Your task to perform on an android device: toggle javascript in the chrome app Image 0: 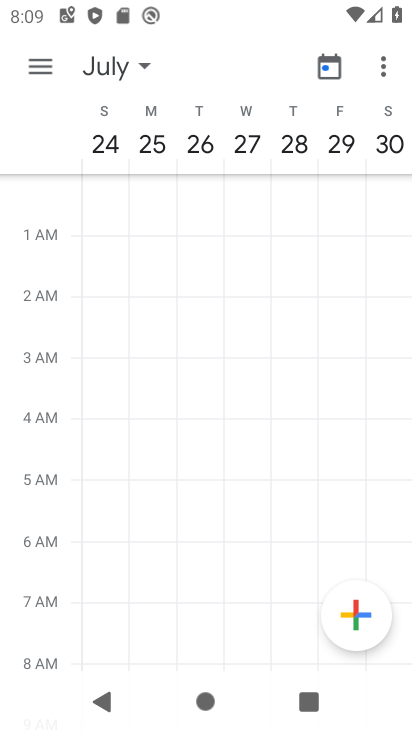
Step 0: press home button
Your task to perform on an android device: toggle javascript in the chrome app Image 1: 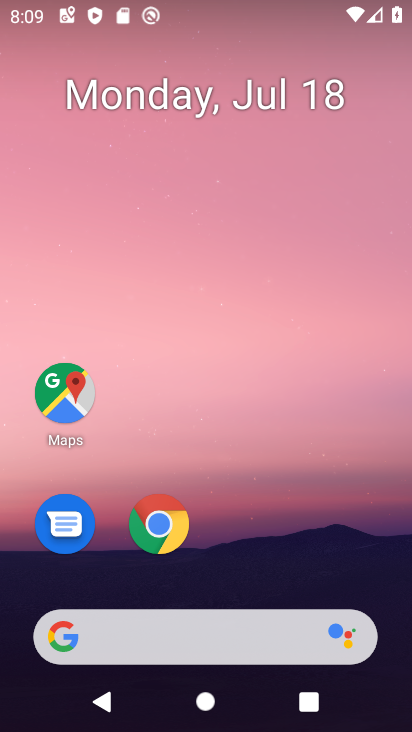
Step 1: click (168, 523)
Your task to perform on an android device: toggle javascript in the chrome app Image 2: 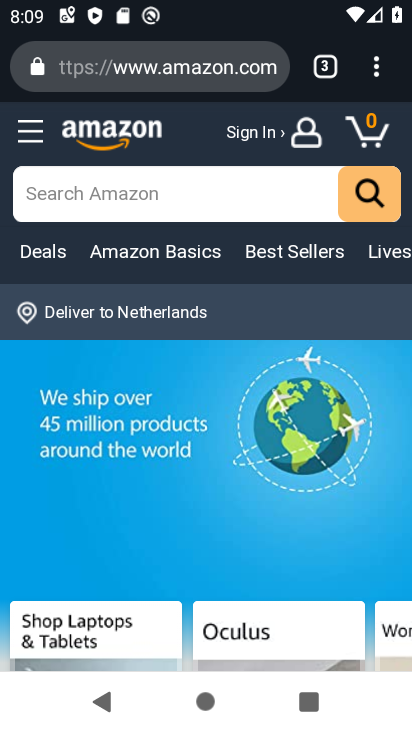
Step 2: click (380, 73)
Your task to perform on an android device: toggle javascript in the chrome app Image 3: 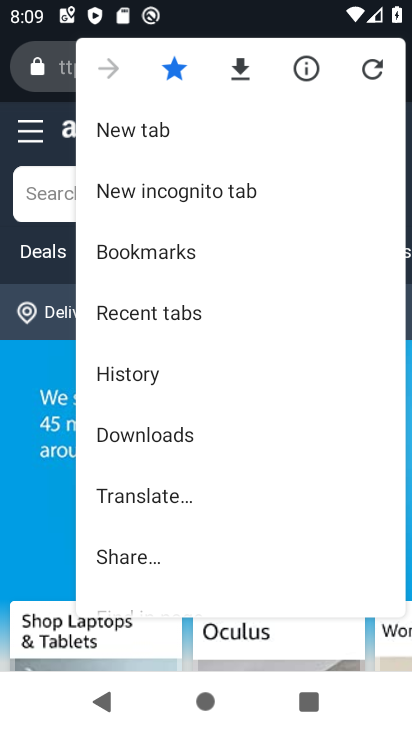
Step 3: drag from (262, 528) to (294, 97)
Your task to perform on an android device: toggle javascript in the chrome app Image 4: 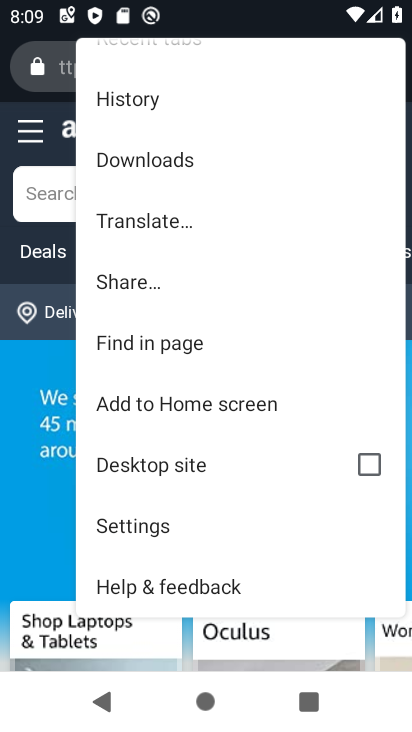
Step 4: click (168, 520)
Your task to perform on an android device: toggle javascript in the chrome app Image 5: 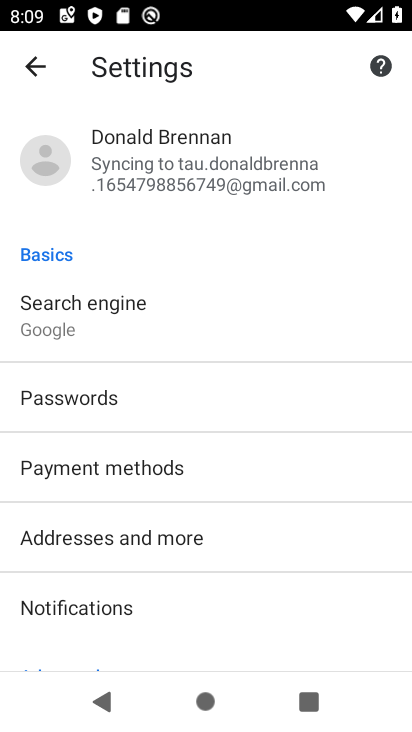
Step 5: drag from (255, 600) to (280, 307)
Your task to perform on an android device: toggle javascript in the chrome app Image 6: 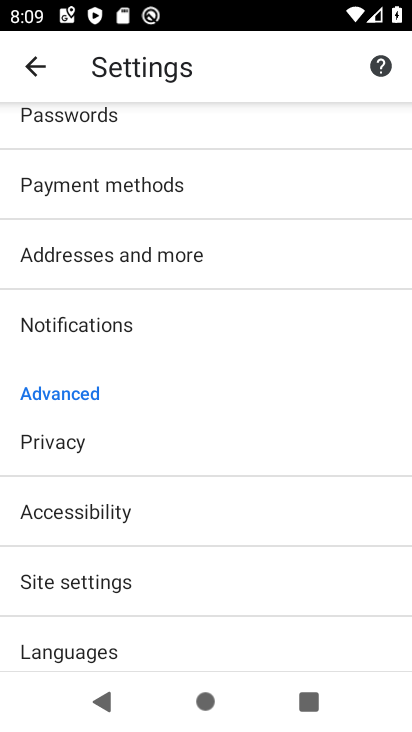
Step 6: click (125, 576)
Your task to perform on an android device: toggle javascript in the chrome app Image 7: 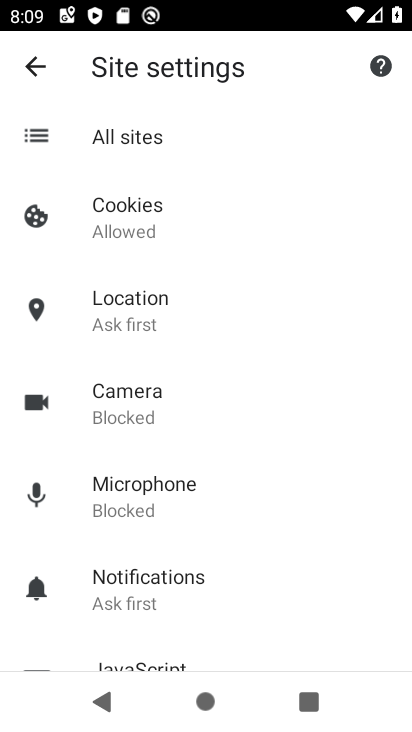
Step 7: drag from (227, 501) to (238, 267)
Your task to perform on an android device: toggle javascript in the chrome app Image 8: 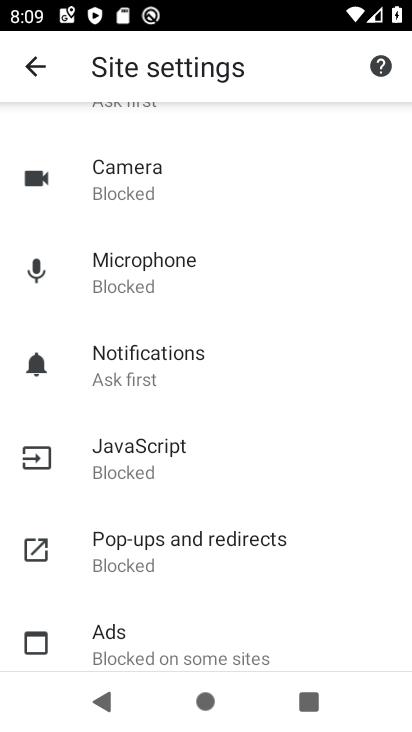
Step 8: click (170, 448)
Your task to perform on an android device: toggle javascript in the chrome app Image 9: 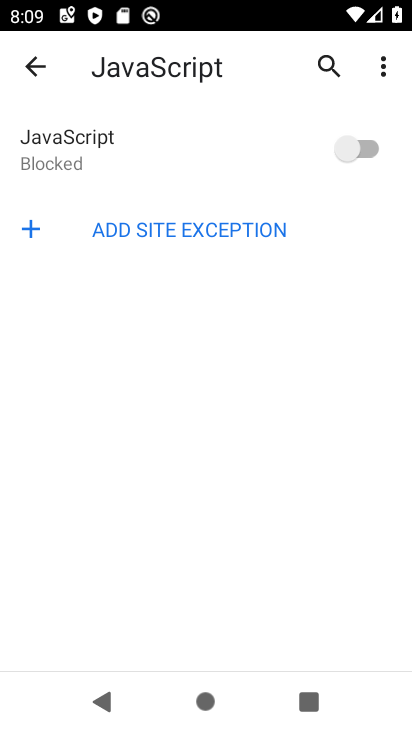
Step 9: click (356, 136)
Your task to perform on an android device: toggle javascript in the chrome app Image 10: 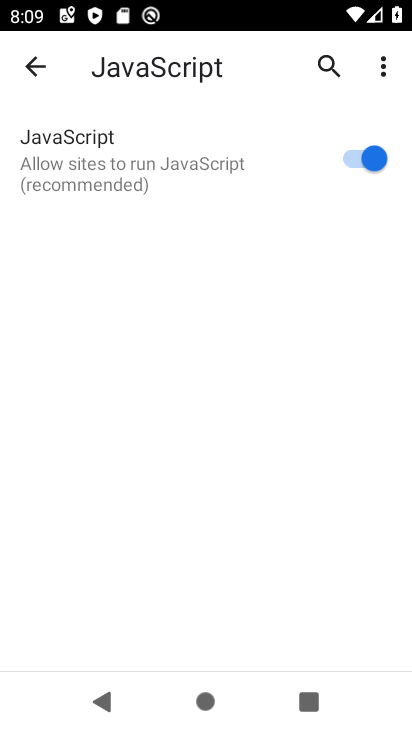
Step 10: task complete